Your task to perform on an android device: set the timer Image 0: 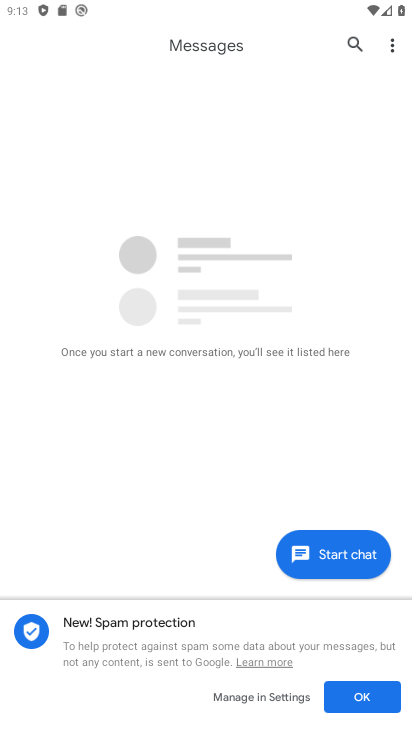
Step 0: press back button
Your task to perform on an android device: set the timer Image 1: 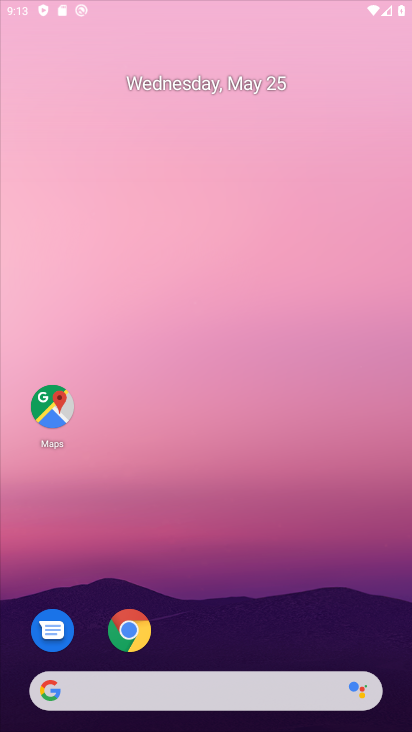
Step 1: press back button
Your task to perform on an android device: set the timer Image 2: 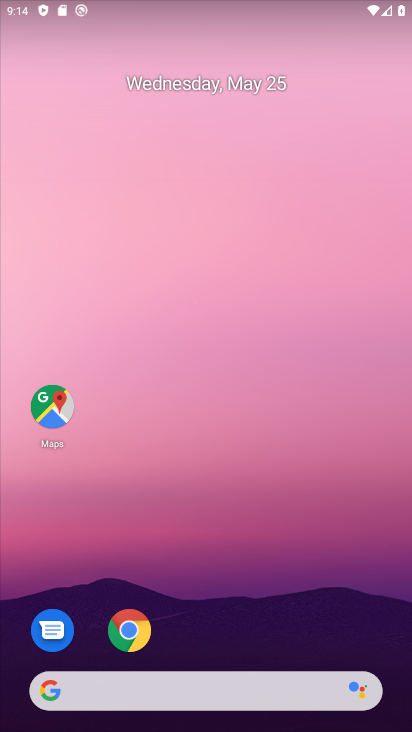
Step 2: drag from (271, 567) to (288, 51)
Your task to perform on an android device: set the timer Image 3: 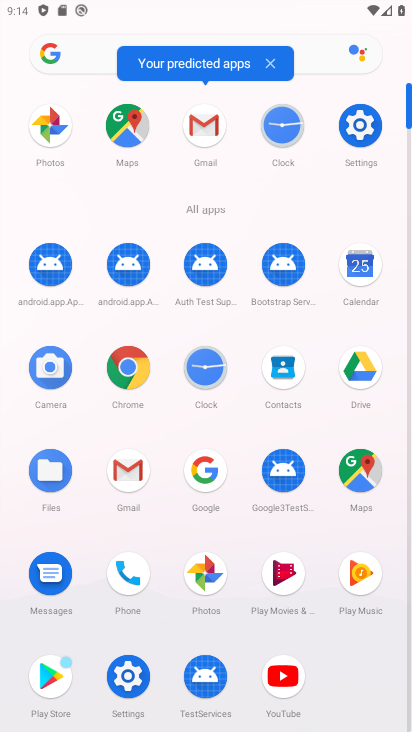
Step 3: click (217, 365)
Your task to perform on an android device: set the timer Image 4: 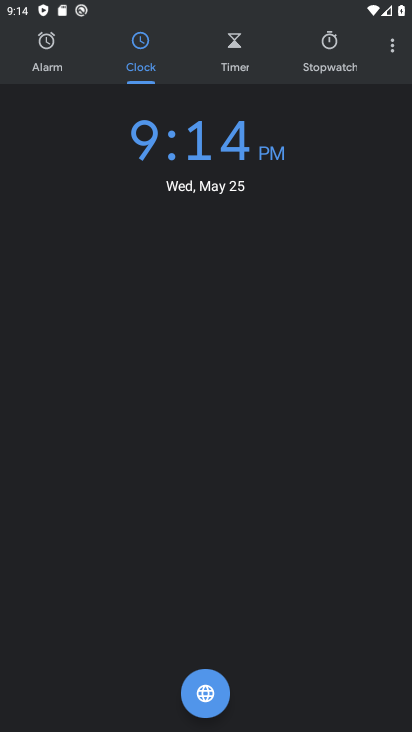
Step 4: click (248, 42)
Your task to perform on an android device: set the timer Image 5: 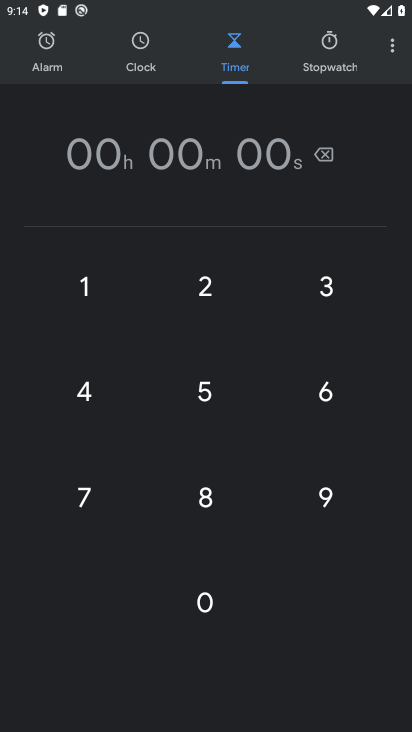
Step 5: click (211, 272)
Your task to perform on an android device: set the timer Image 6: 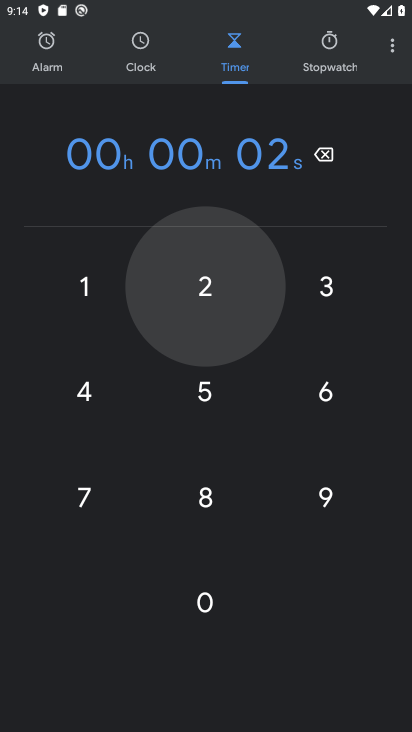
Step 6: click (334, 278)
Your task to perform on an android device: set the timer Image 7: 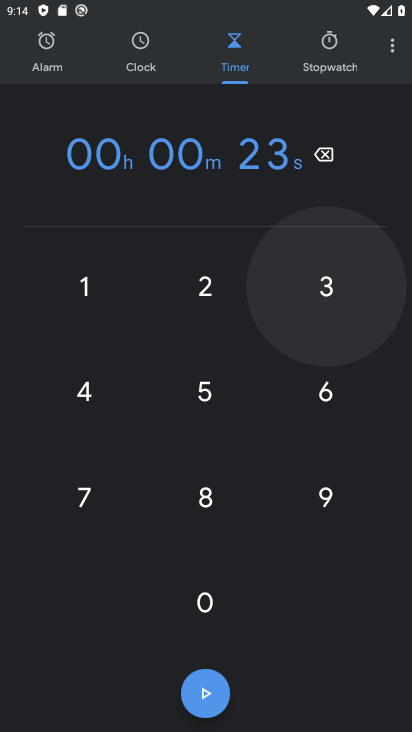
Step 7: click (178, 387)
Your task to perform on an android device: set the timer Image 8: 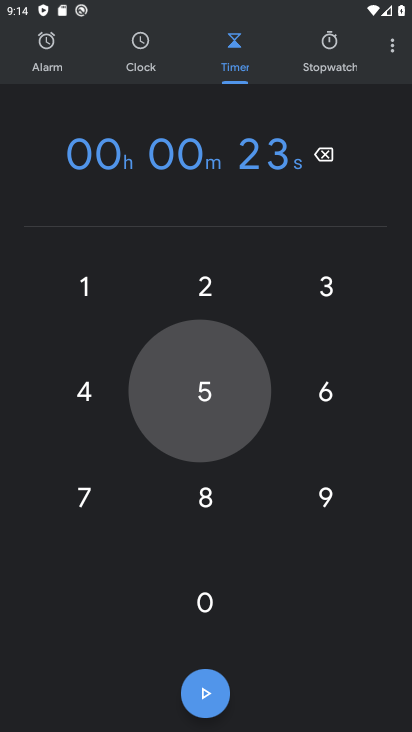
Step 8: click (287, 368)
Your task to perform on an android device: set the timer Image 9: 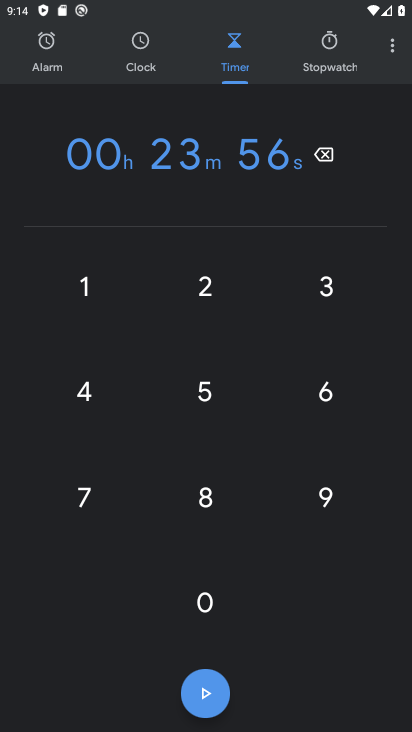
Step 9: task complete